Your task to perform on an android device: Search for beats solo 3 on walmart, select the first entry, add it to the cart, then select checkout. Image 0: 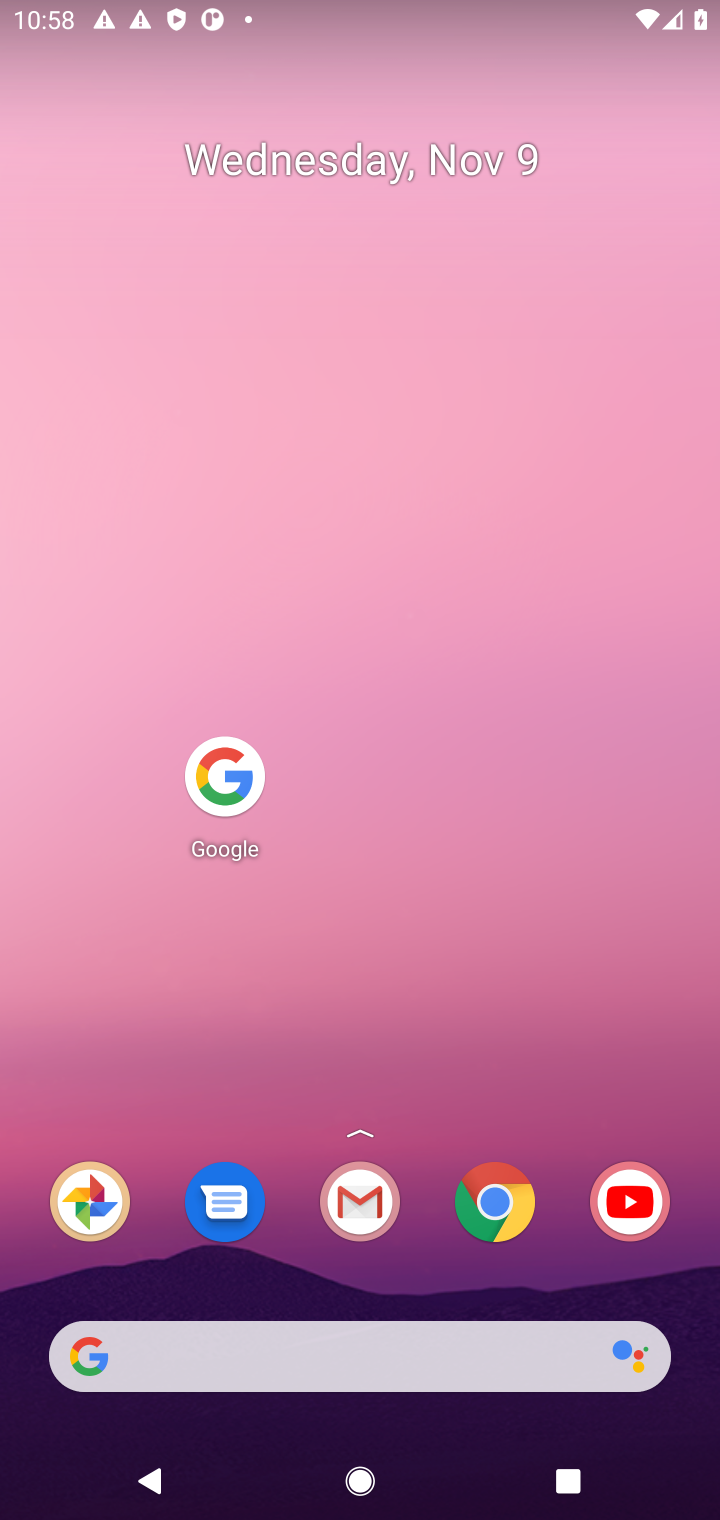
Step 0: click (217, 773)
Your task to perform on an android device: Search for beats solo 3 on walmart, select the first entry, add it to the cart, then select checkout. Image 1: 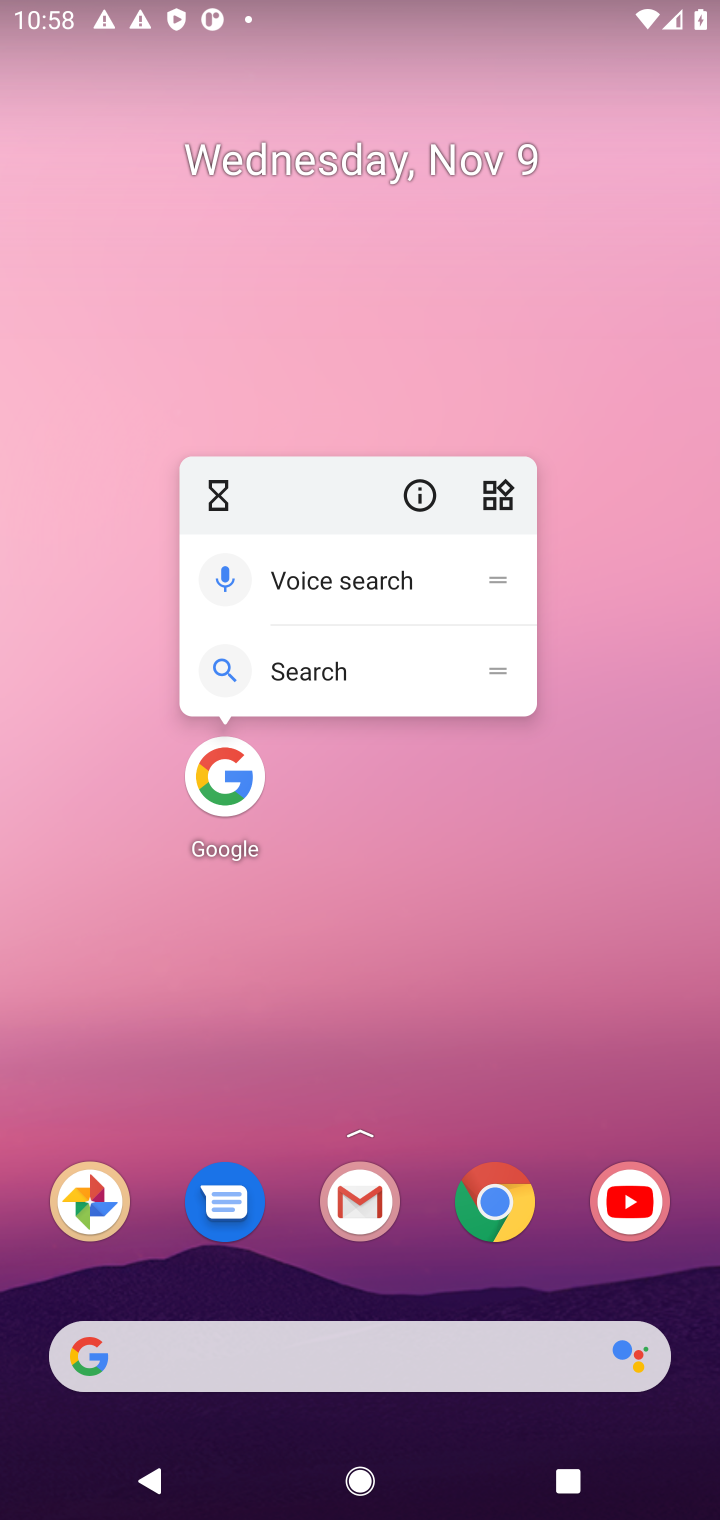
Step 1: click (220, 780)
Your task to perform on an android device: Search for beats solo 3 on walmart, select the first entry, add it to the cart, then select checkout. Image 2: 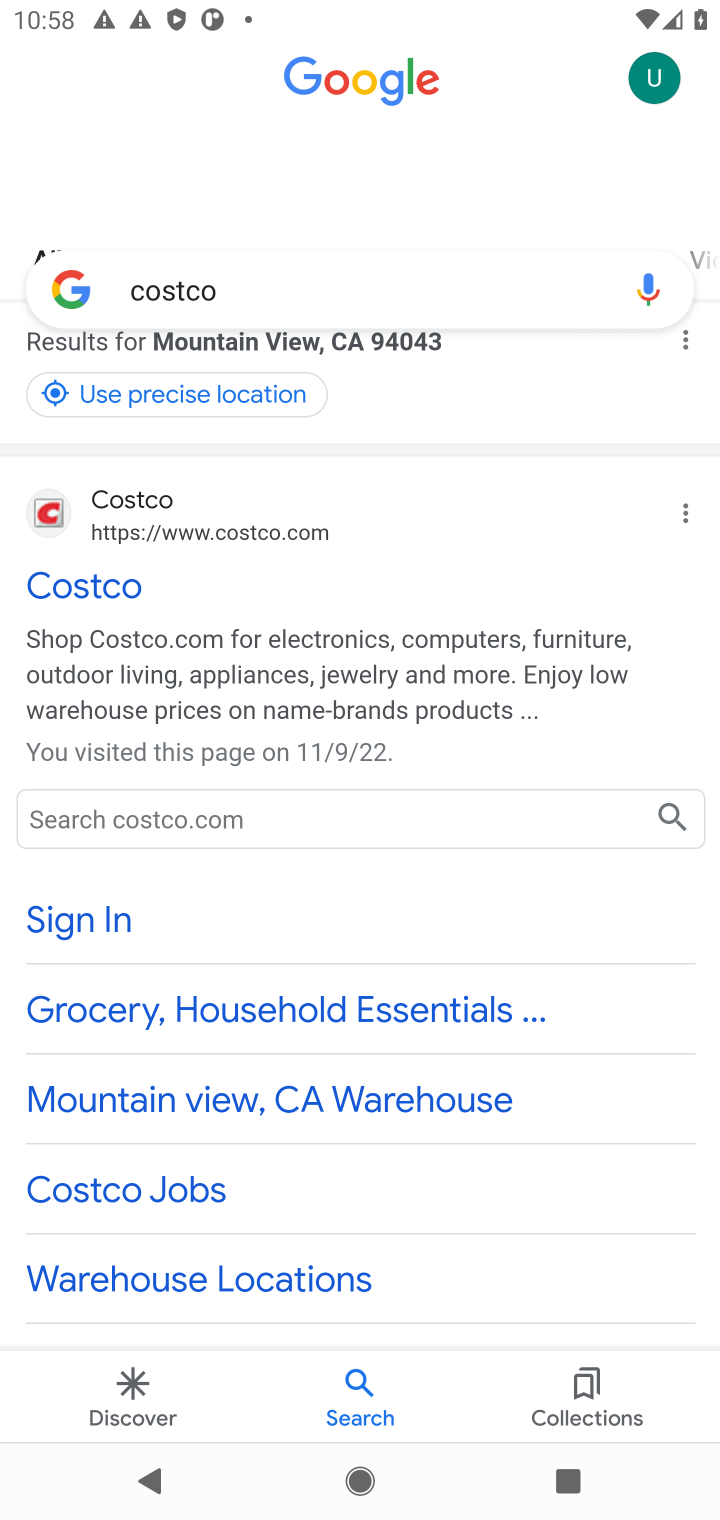
Step 2: click (311, 280)
Your task to perform on an android device: Search for beats solo 3 on walmart, select the first entry, add it to the cart, then select checkout. Image 3: 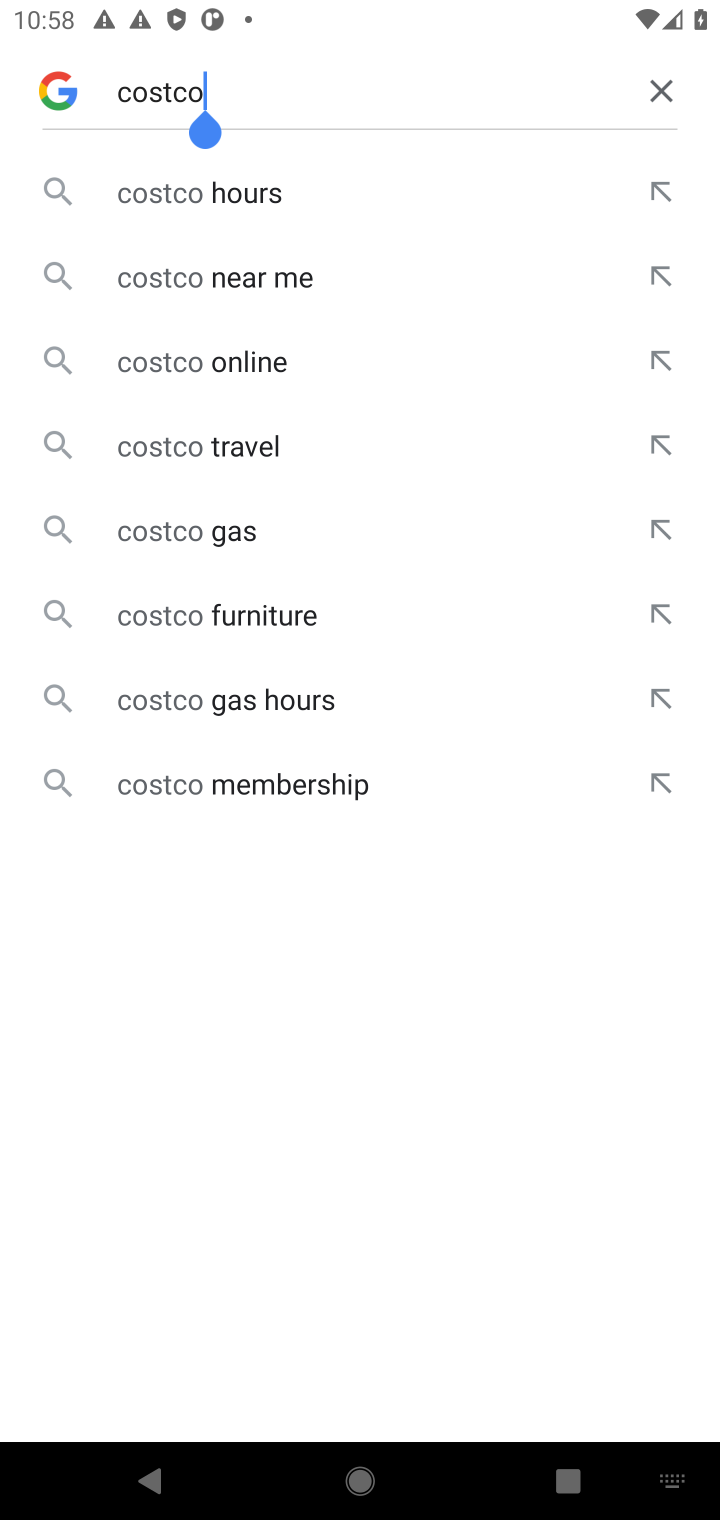
Step 3: click (662, 88)
Your task to perform on an android device: Search for beats solo 3 on walmart, select the first entry, add it to the cart, then select checkout. Image 4: 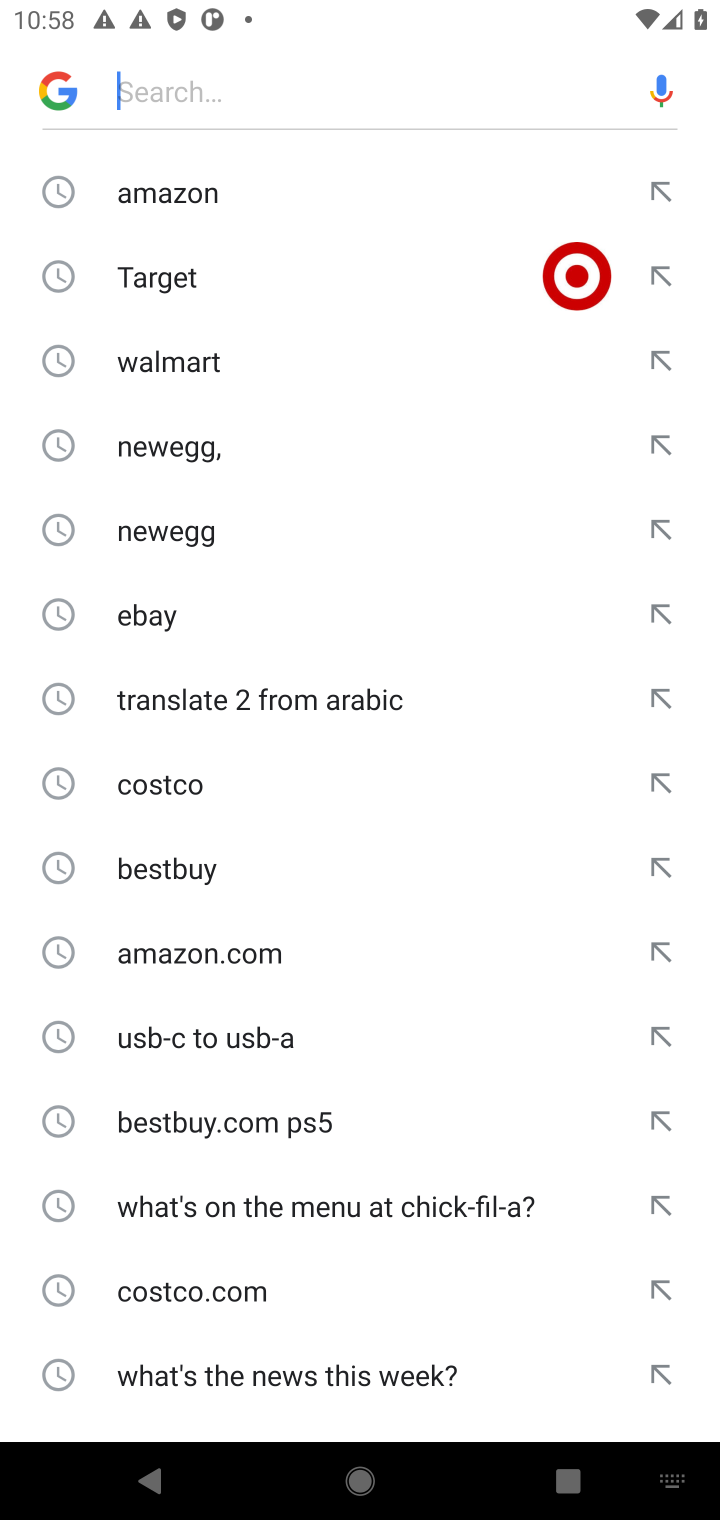
Step 4: click (179, 362)
Your task to perform on an android device: Search for beats solo 3 on walmart, select the first entry, add it to the cart, then select checkout. Image 5: 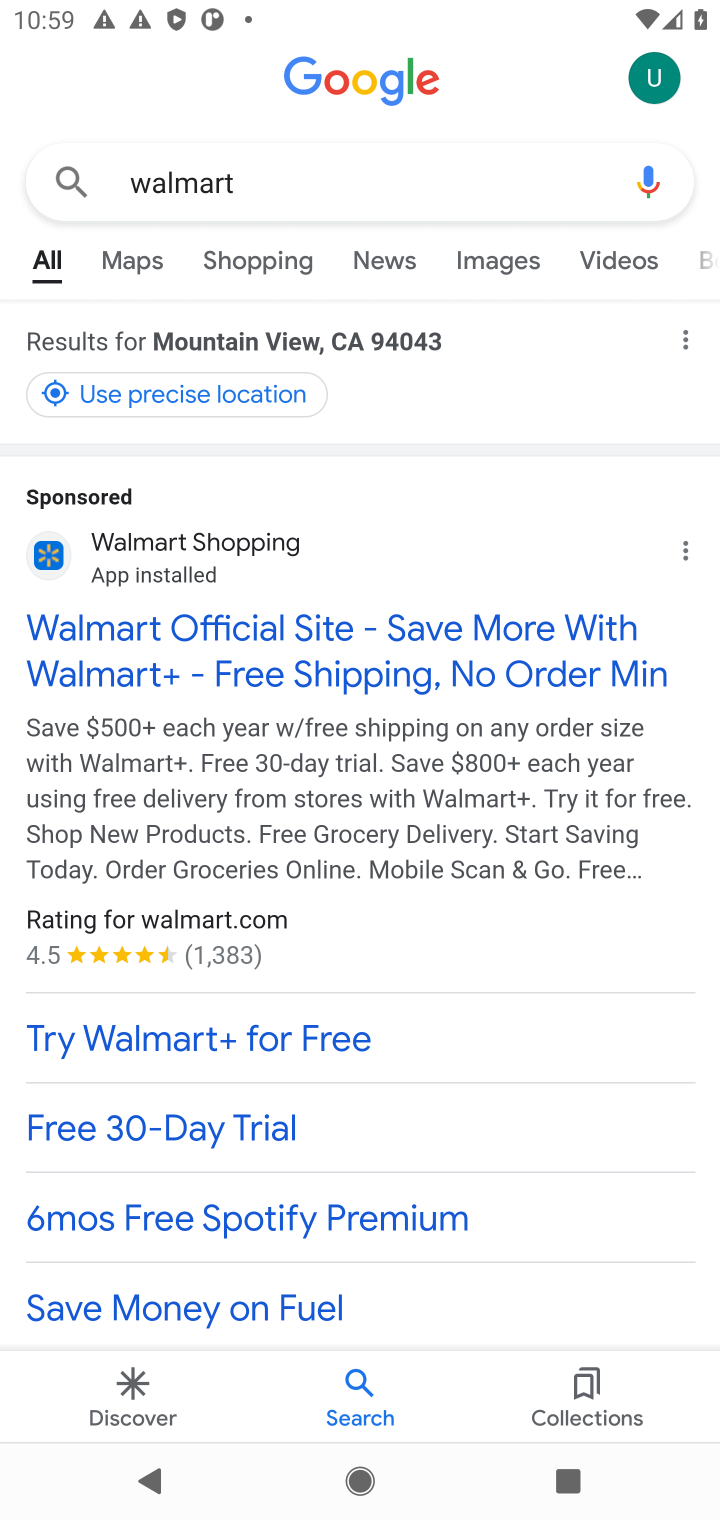
Step 5: drag from (222, 1175) to (579, 399)
Your task to perform on an android device: Search for beats solo 3 on walmart, select the first entry, add it to the cart, then select checkout. Image 6: 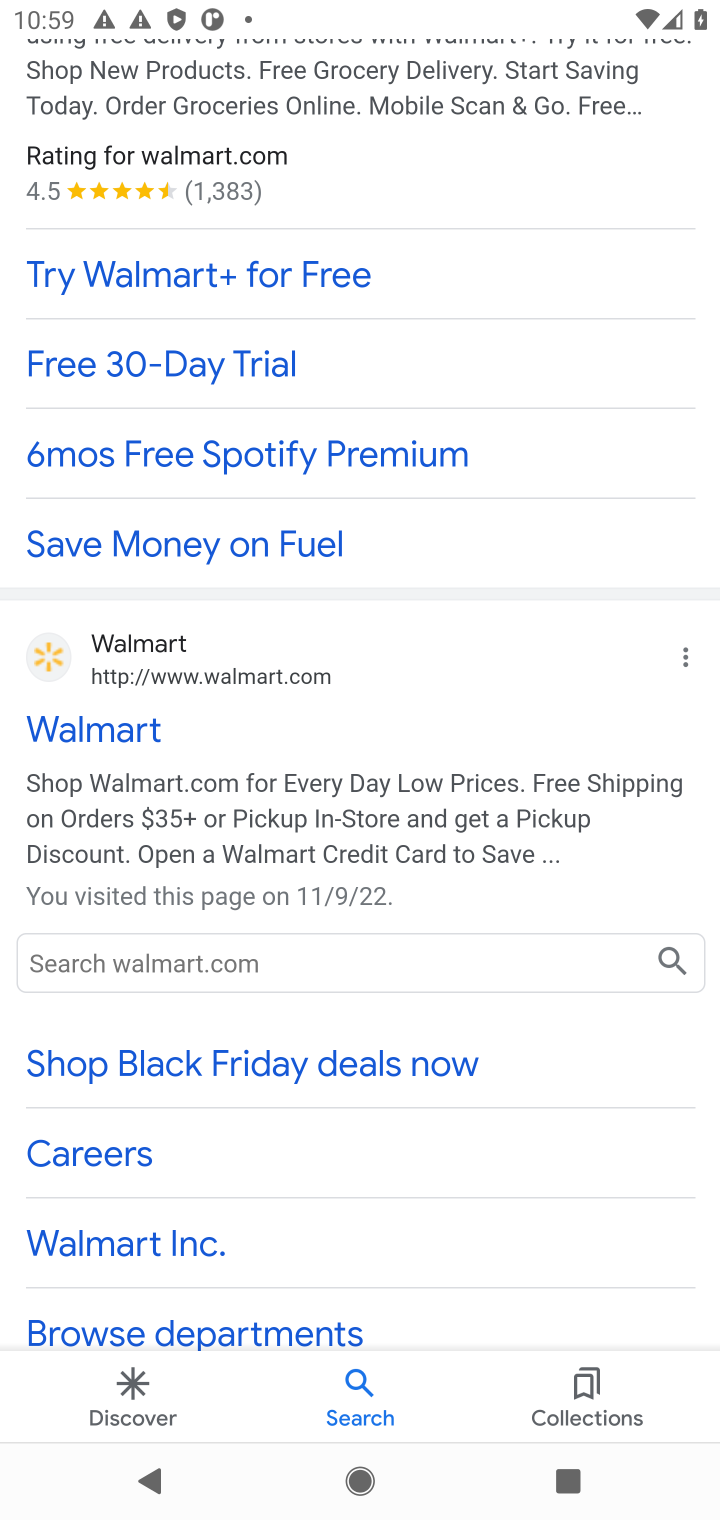
Step 6: click (119, 731)
Your task to perform on an android device: Search for beats solo 3 on walmart, select the first entry, add it to the cart, then select checkout. Image 7: 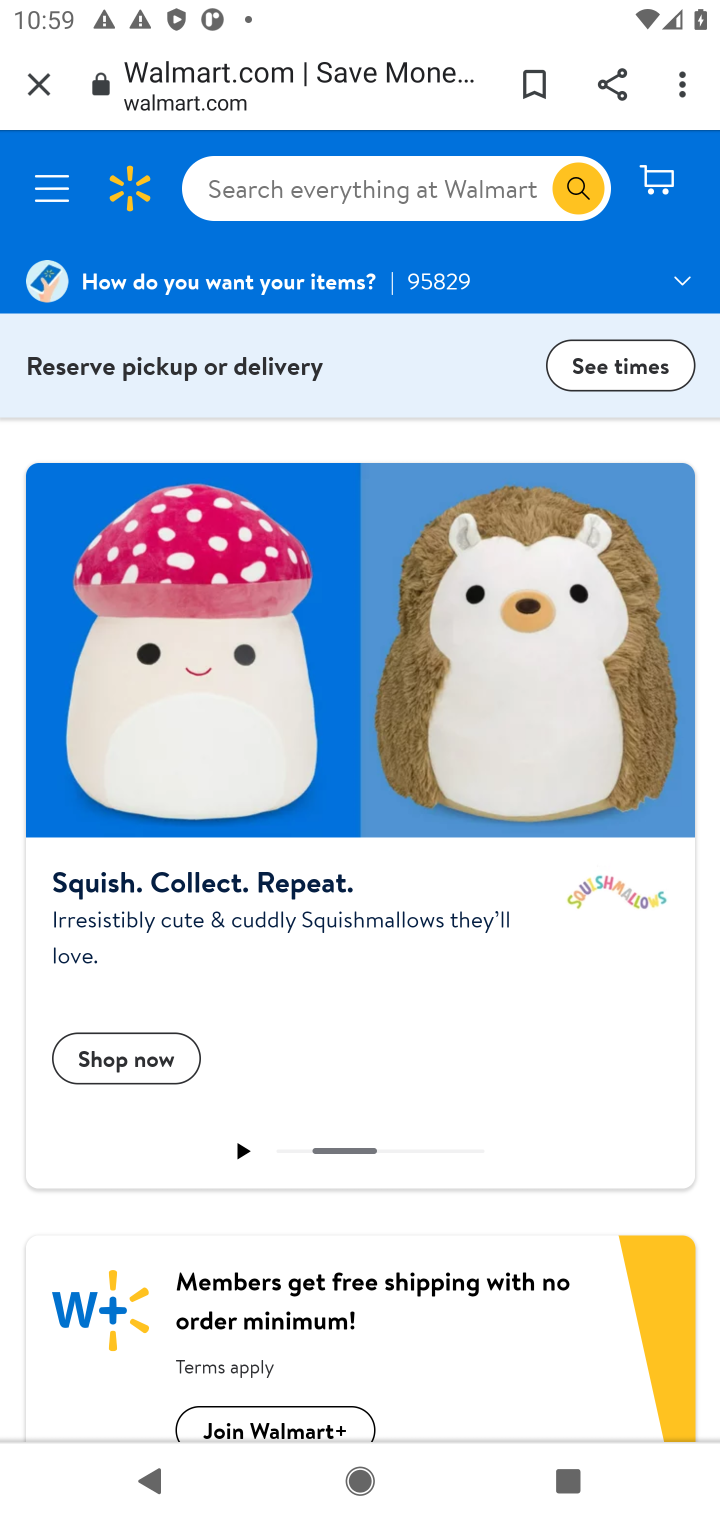
Step 7: click (337, 176)
Your task to perform on an android device: Search for beats solo 3 on walmart, select the first entry, add it to the cart, then select checkout. Image 8: 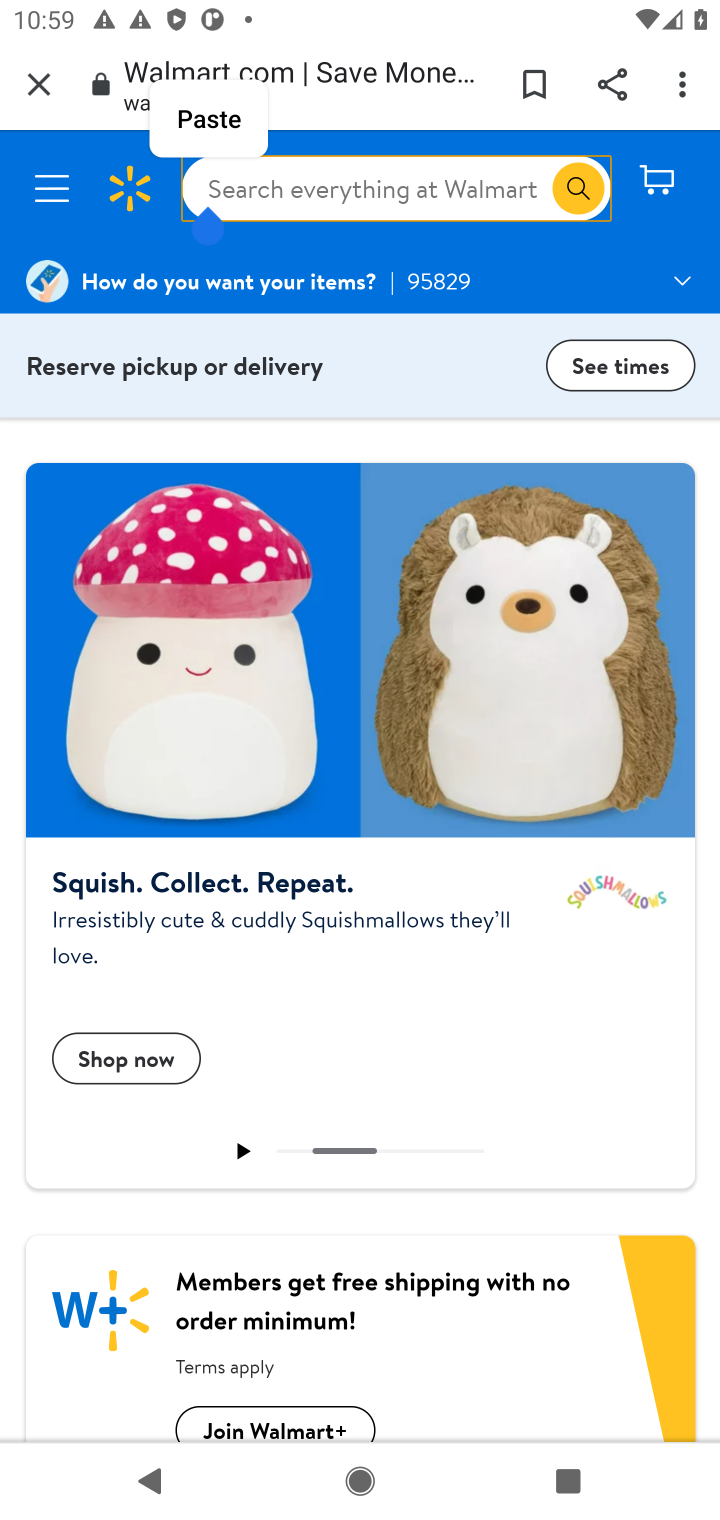
Step 8: press enter
Your task to perform on an android device: Search for beats solo 3 on walmart, select the first entry, add it to the cart, then select checkout. Image 9: 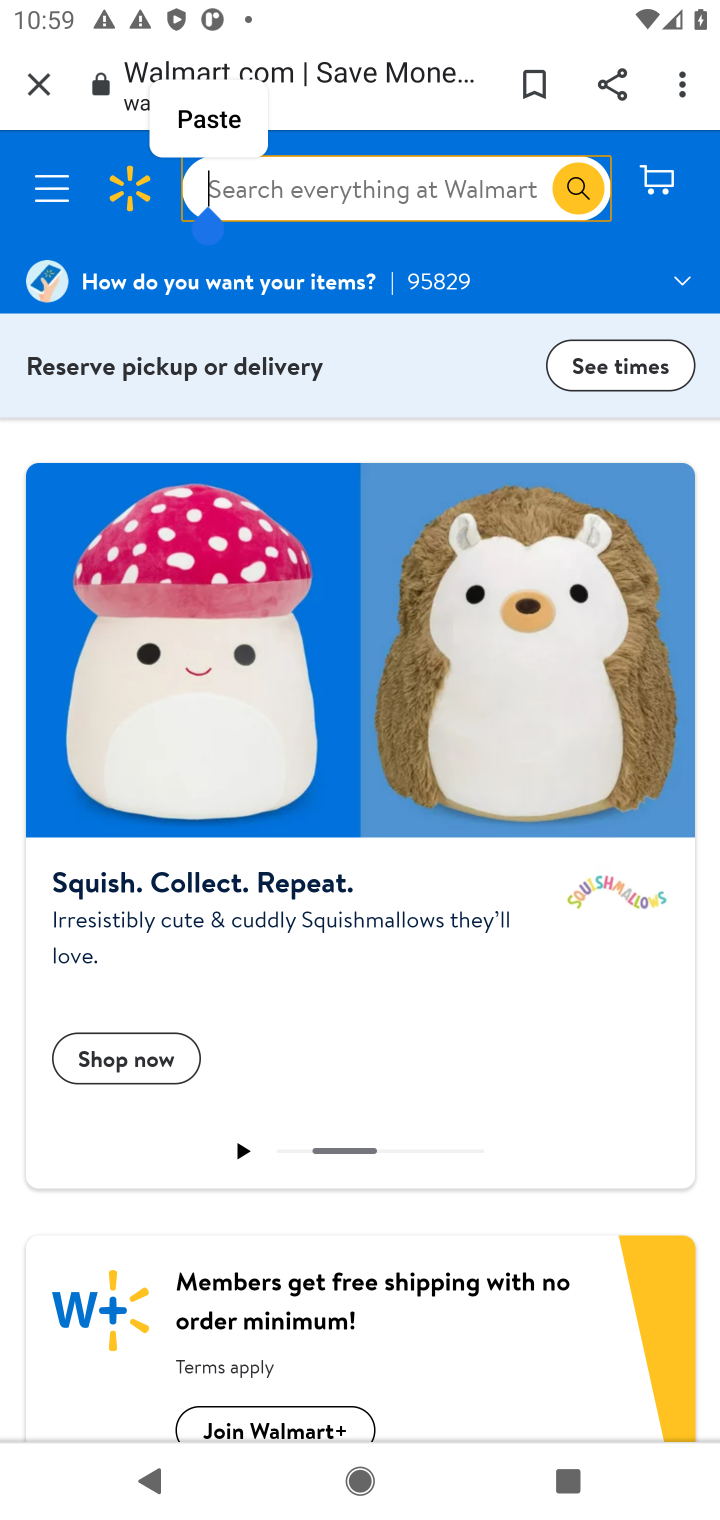
Step 9: type " beats solo 3 "
Your task to perform on an android device: Search for beats solo 3 on walmart, select the first entry, add it to the cart, then select checkout. Image 10: 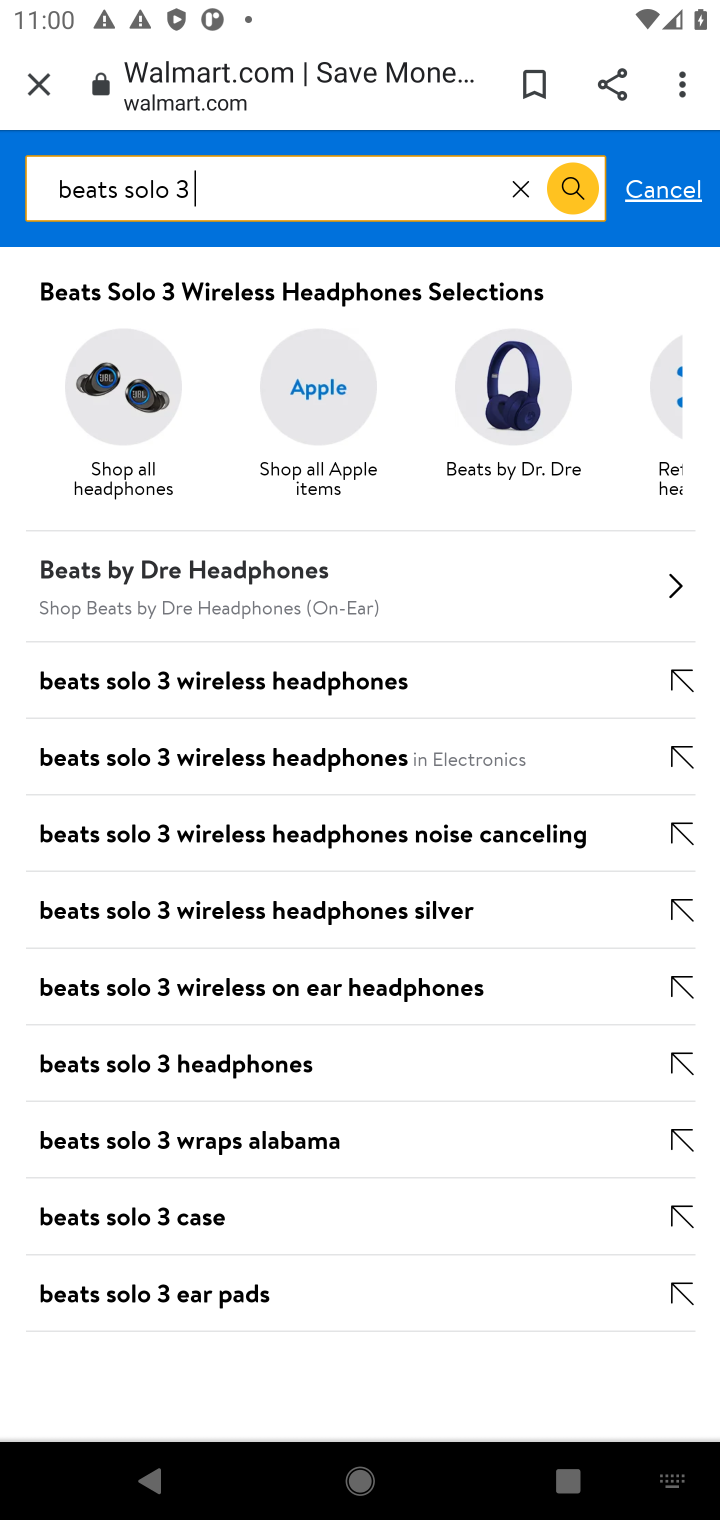
Step 10: press enter
Your task to perform on an android device: Search for beats solo 3 on walmart, select the first entry, add it to the cart, then select checkout. Image 11: 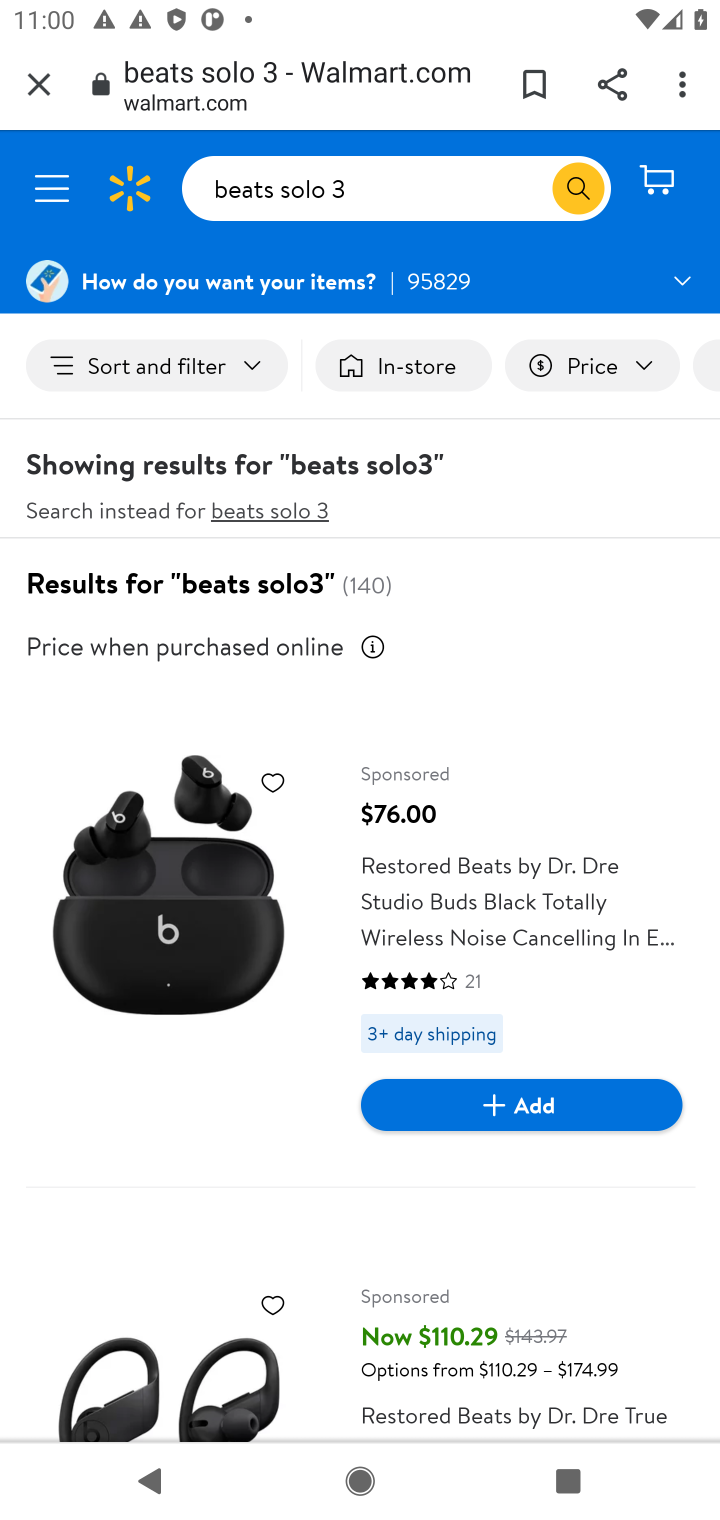
Step 11: task complete